Your task to perform on an android device: Open calendar and show me the second week of next month Image 0: 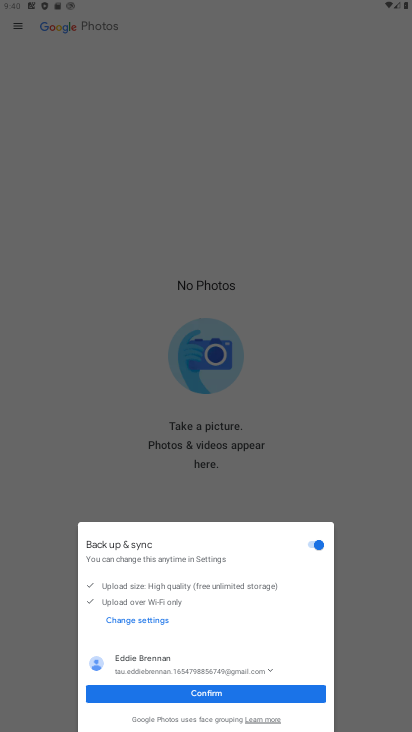
Step 0: press home button
Your task to perform on an android device: Open calendar and show me the second week of next month Image 1: 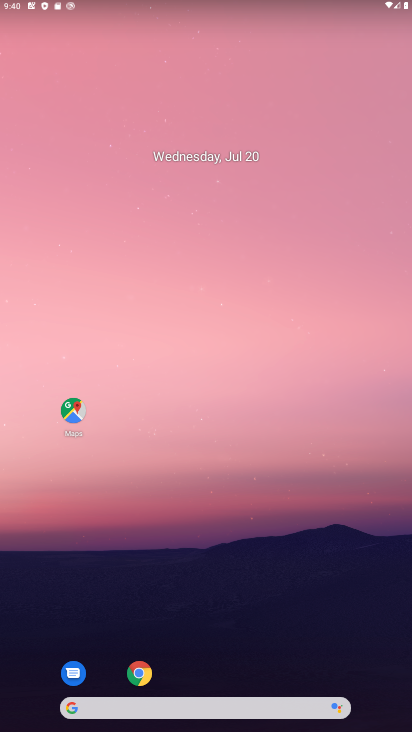
Step 1: drag from (180, 706) to (274, 286)
Your task to perform on an android device: Open calendar and show me the second week of next month Image 2: 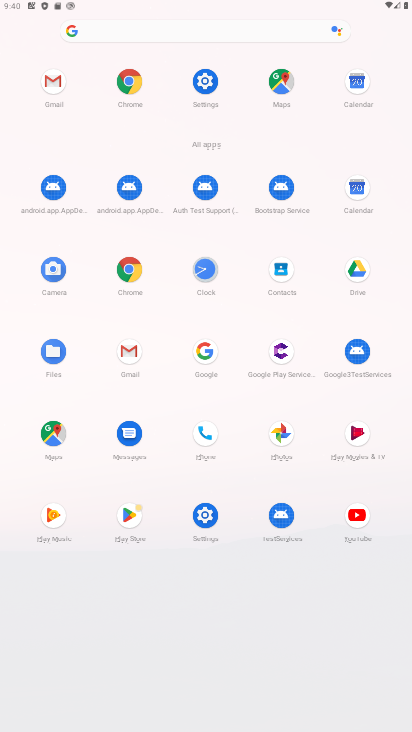
Step 2: click (359, 189)
Your task to perform on an android device: Open calendar and show me the second week of next month Image 3: 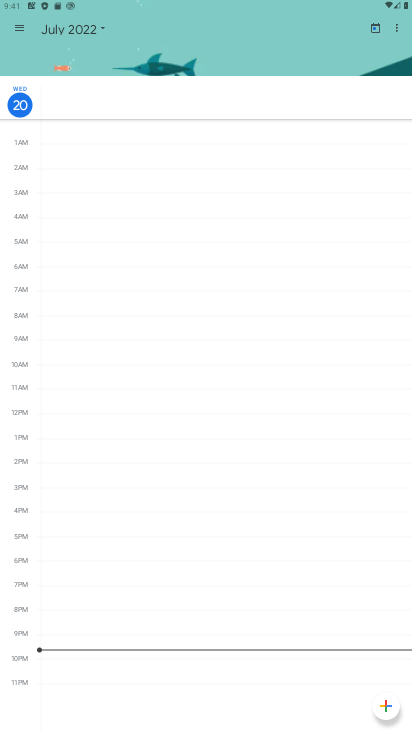
Step 3: click (99, 28)
Your task to perform on an android device: Open calendar and show me the second week of next month Image 4: 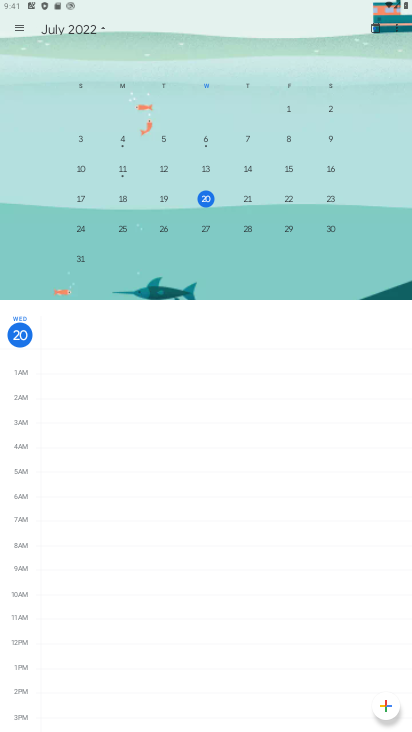
Step 4: drag from (345, 208) to (6, 225)
Your task to perform on an android device: Open calendar and show me the second week of next month Image 5: 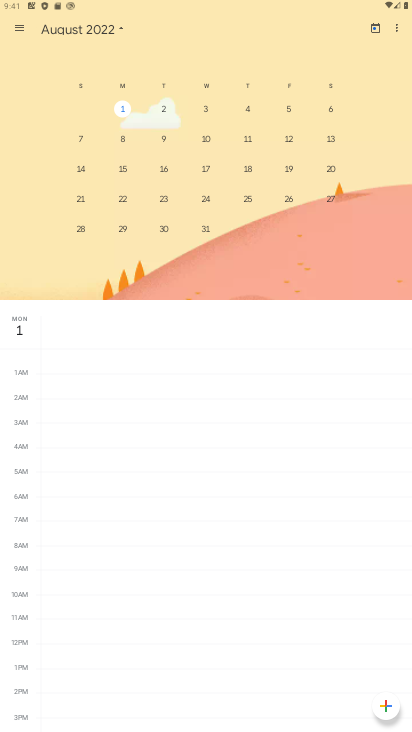
Step 5: click (120, 133)
Your task to perform on an android device: Open calendar and show me the second week of next month Image 6: 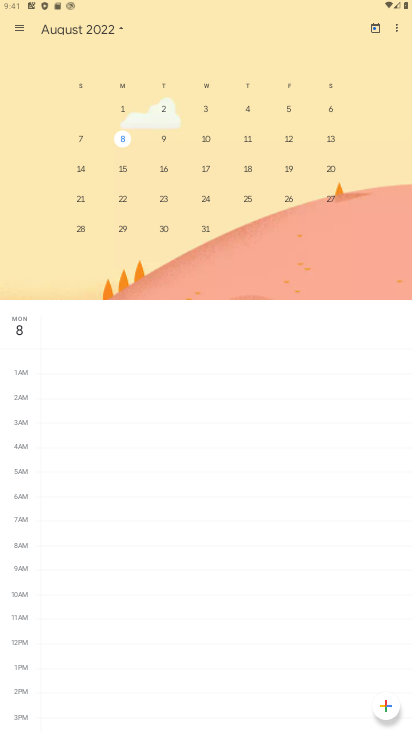
Step 6: click (20, 23)
Your task to perform on an android device: Open calendar and show me the second week of next month Image 7: 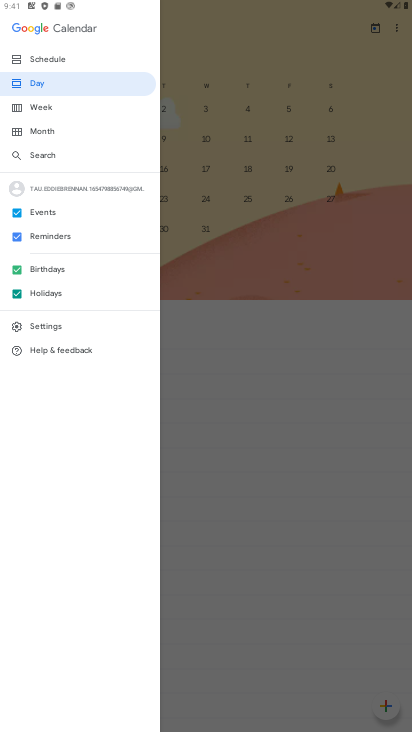
Step 7: click (52, 105)
Your task to perform on an android device: Open calendar and show me the second week of next month Image 8: 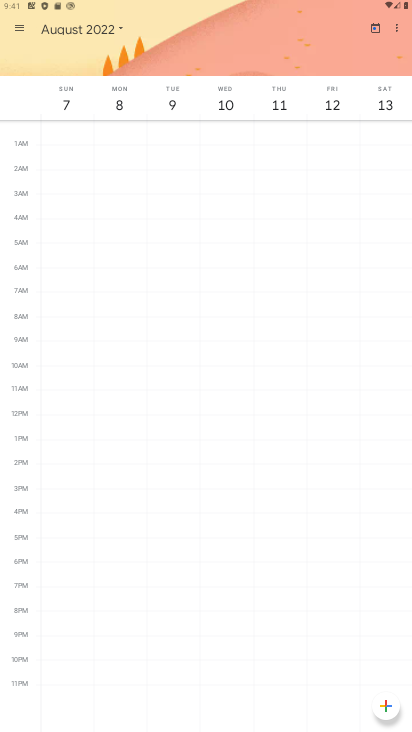
Step 8: task complete